Your task to perform on an android device: Show me popular games on the Play Store Image 0: 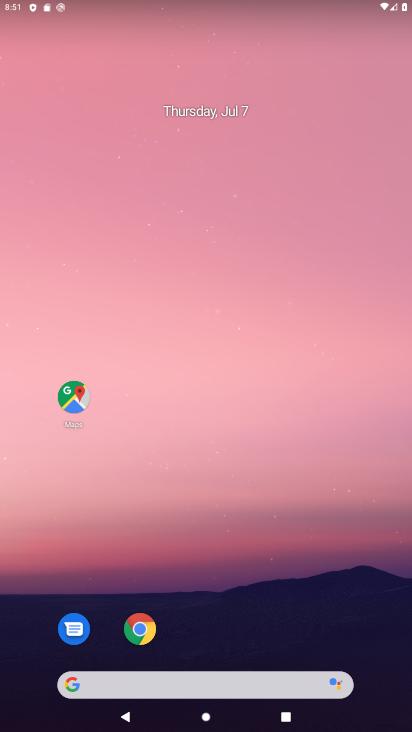
Step 0: drag from (197, 567) to (92, 8)
Your task to perform on an android device: Show me popular games on the Play Store Image 1: 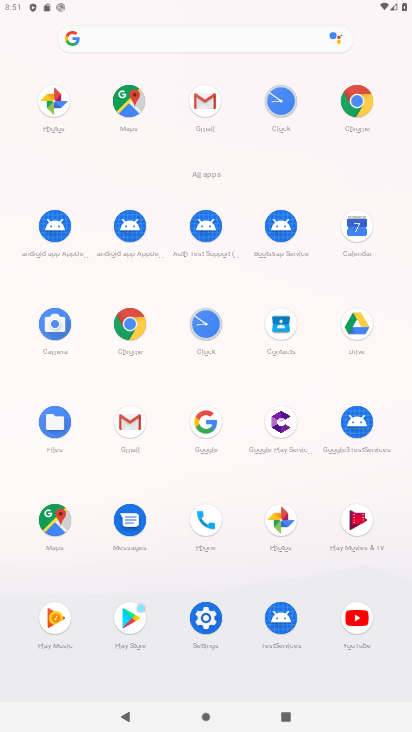
Step 1: click (119, 621)
Your task to perform on an android device: Show me popular games on the Play Store Image 2: 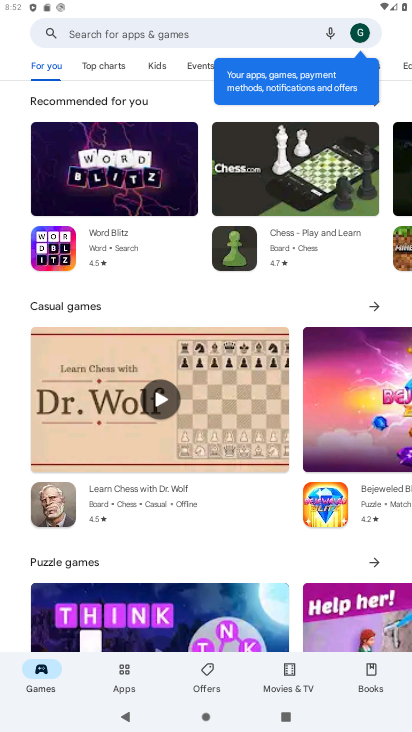
Step 2: task complete